Your task to perform on an android device: change keyboard looks Image 0: 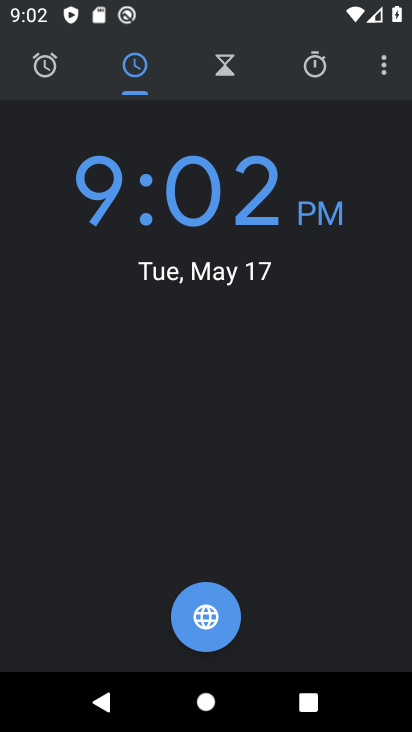
Step 0: press home button
Your task to perform on an android device: change keyboard looks Image 1: 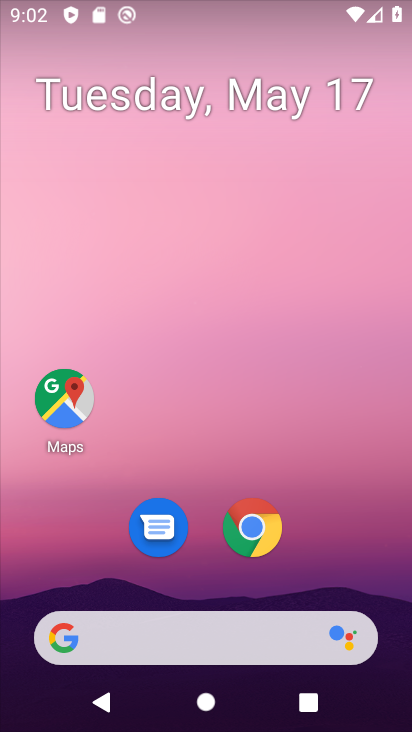
Step 1: drag from (177, 637) to (302, 188)
Your task to perform on an android device: change keyboard looks Image 2: 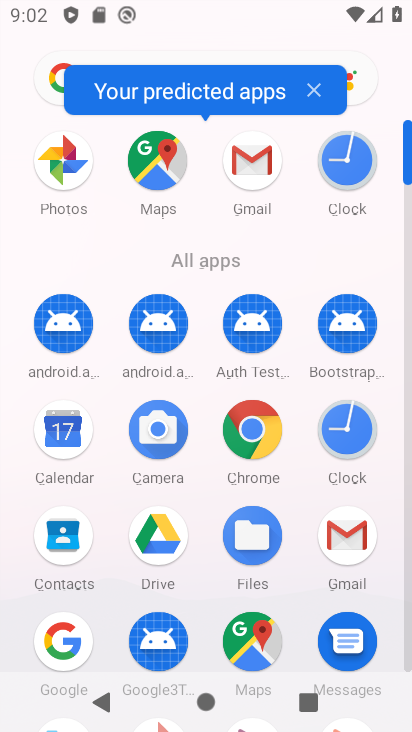
Step 2: drag from (192, 593) to (354, 201)
Your task to perform on an android device: change keyboard looks Image 3: 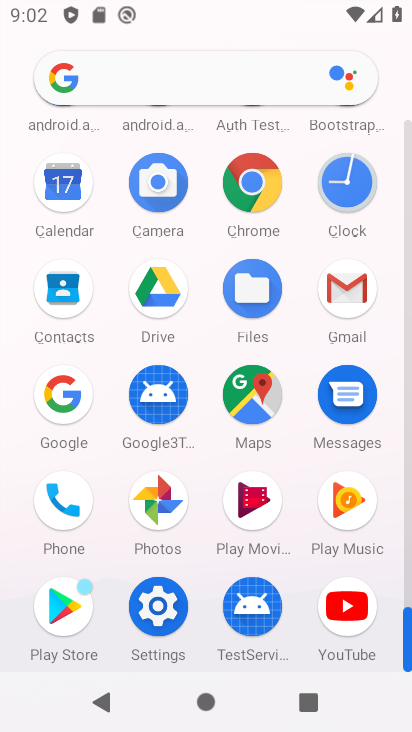
Step 3: click (167, 619)
Your task to perform on an android device: change keyboard looks Image 4: 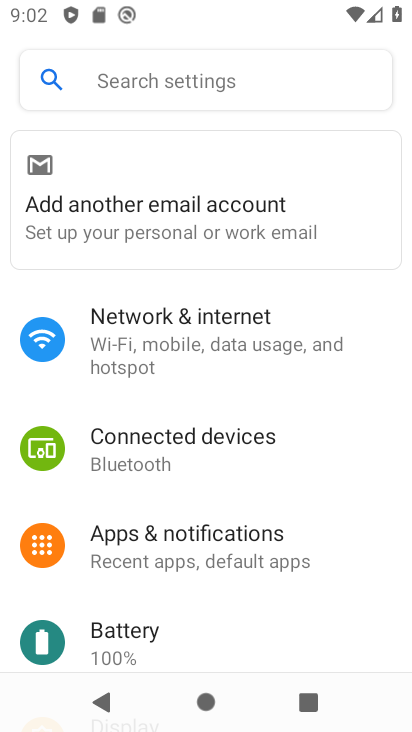
Step 4: drag from (200, 607) to (355, 92)
Your task to perform on an android device: change keyboard looks Image 5: 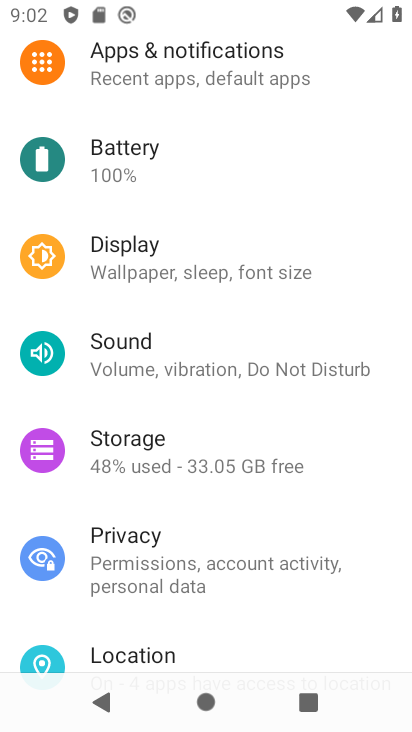
Step 5: drag from (218, 611) to (355, 159)
Your task to perform on an android device: change keyboard looks Image 6: 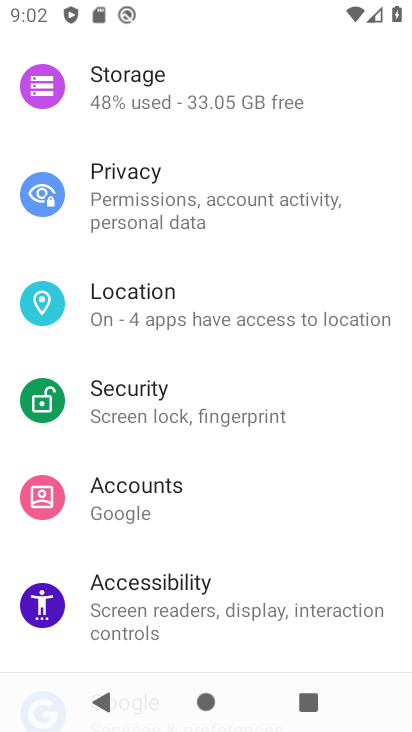
Step 6: drag from (291, 533) to (345, 143)
Your task to perform on an android device: change keyboard looks Image 7: 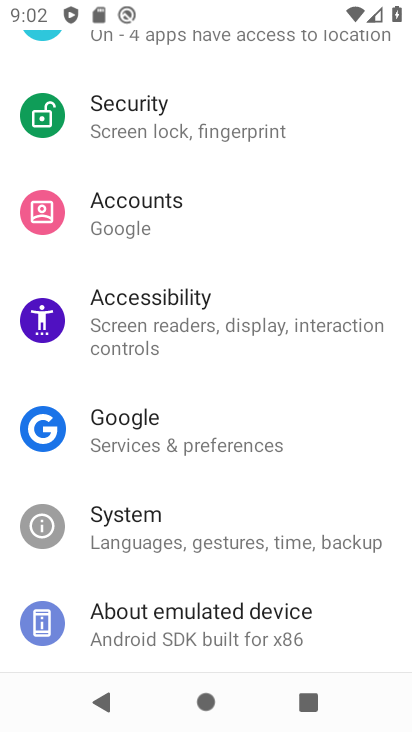
Step 7: click (154, 536)
Your task to perform on an android device: change keyboard looks Image 8: 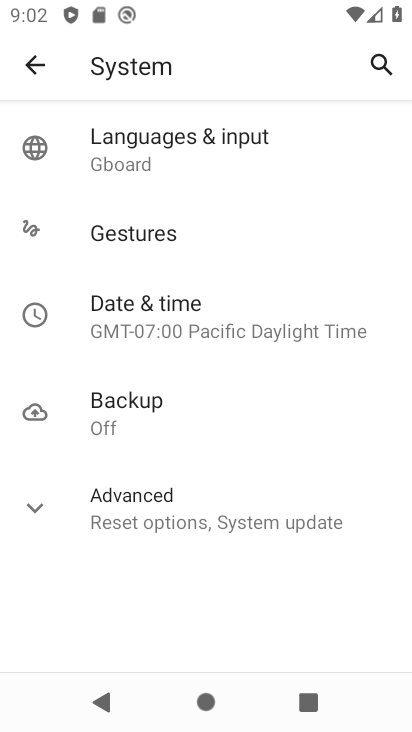
Step 8: click (170, 150)
Your task to perform on an android device: change keyboard looks Image 9: 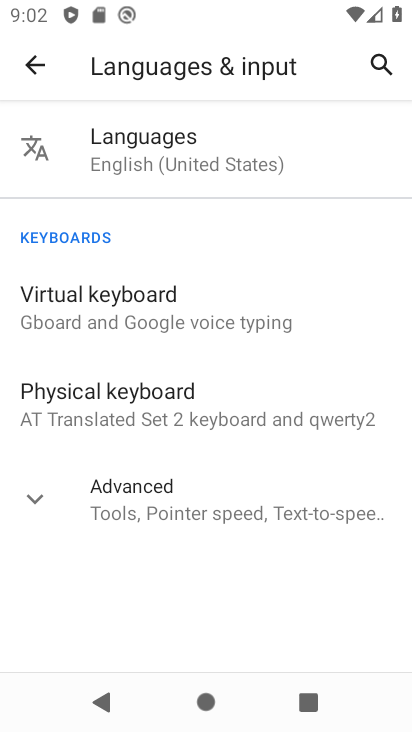
Step 9: click (167, 303)
Your task to perform on an android device: change keyboard looks Image 10: 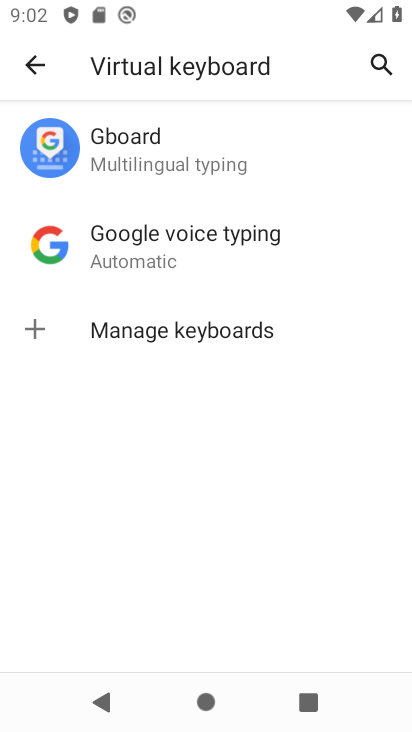
Step 10: click (181, 157)
Your task to perform on an android device: change keyboard looks Image 11: 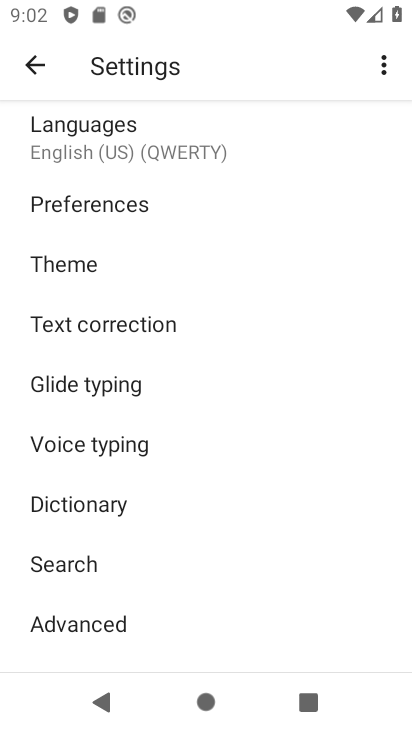
Step 11: click (74, 265)
Your task to perform on an android device: change keyboard looks Image 12: 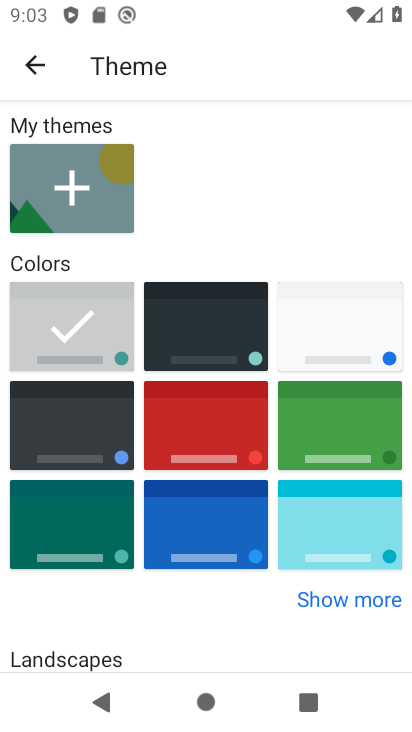
Step 12: click (314, 531)
Your task to perform on an android device: change keyboard looks Image 13: 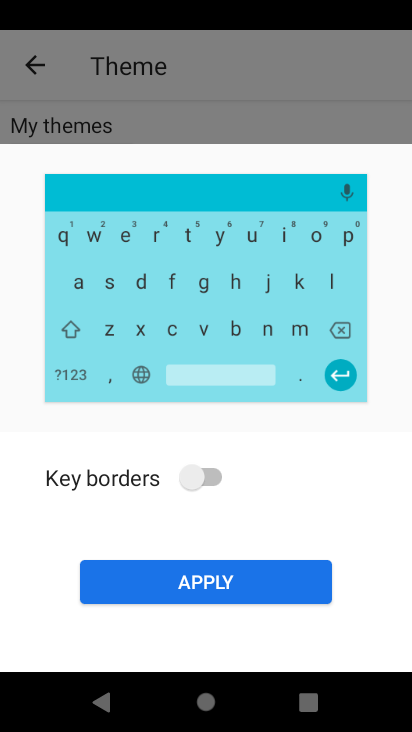
Step 13: click (242, 595)
Your task to perform on an android device: change keyboard looks Image 14: 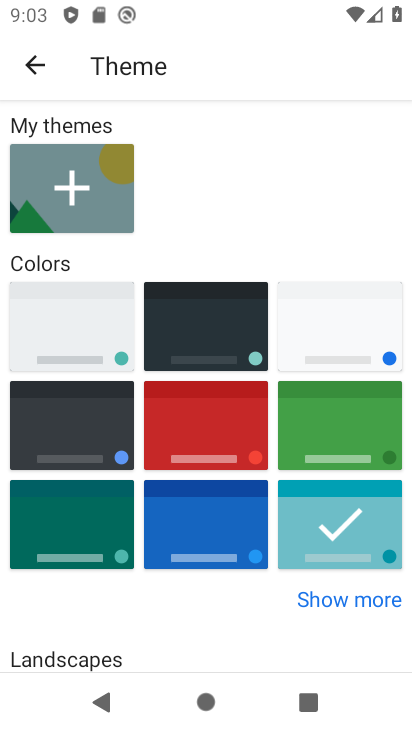
Step 14: task complete